Your task to perform on an android device: make emails show in primary in the gmail app Image 0: 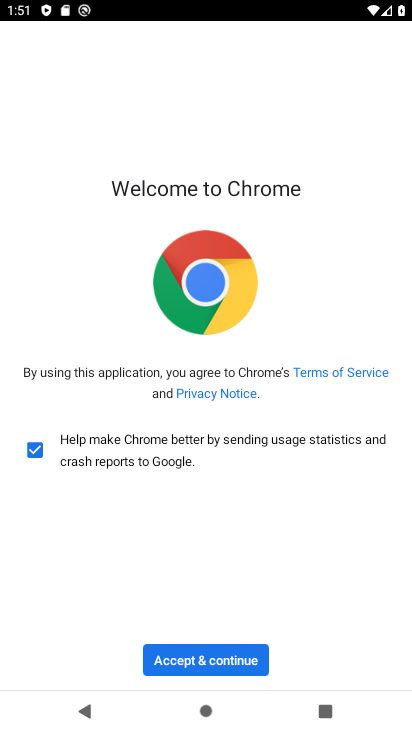
Step 0: press home button
Your task to perform on an android device: make emails show in primary in the gmail app Image 1: 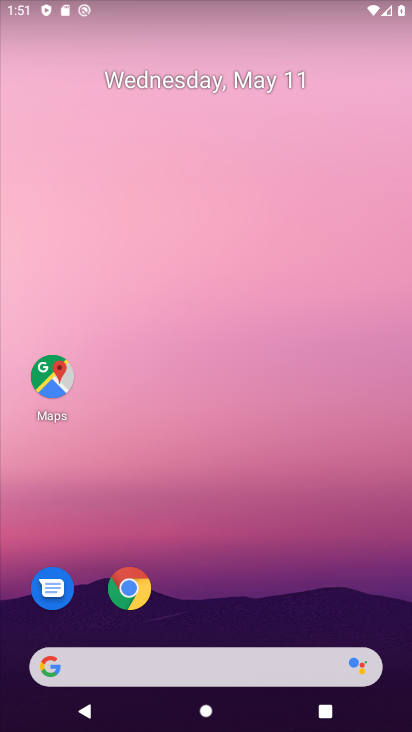
Step 1: drag from (246, 600) to (202, 156)
Your task to perform on an android device: make emails show in primary in the gmail app Image 2: 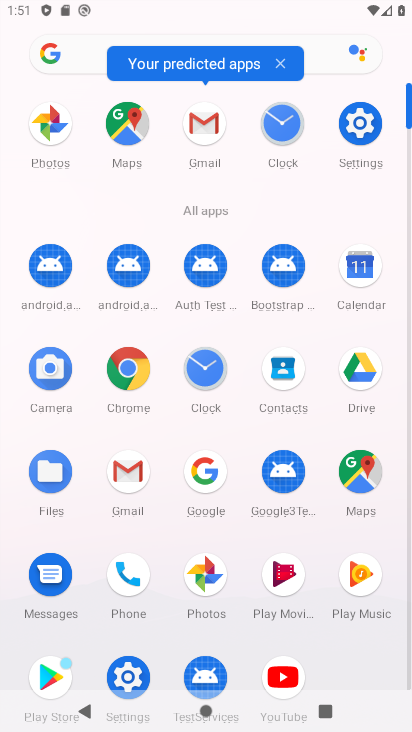
Step 2: click (202, 124)
Your task to perform on an android device: make emails show in primary in the gmail app Image 3: 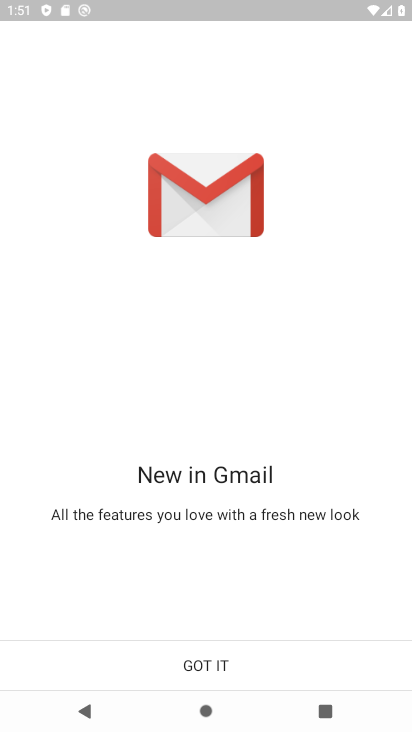
Step 3: click (250, 643)
Your task to perform on an android device: make emails show in primary in the gmail app Image 4: 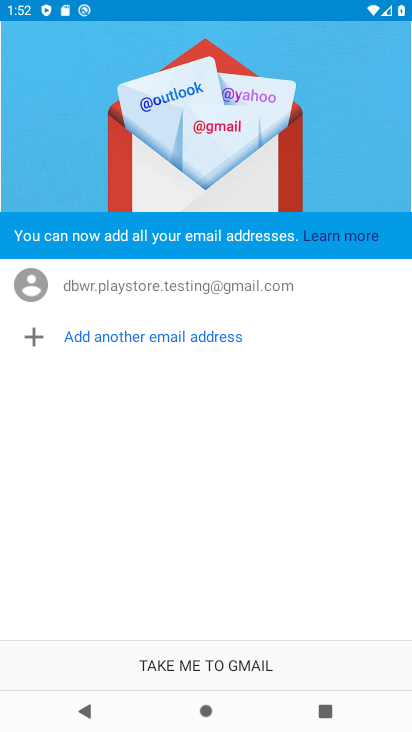
Step 4: click (228, 648)
Your task to perform on an android device: make emails show in primary in the gmail app Image 5: 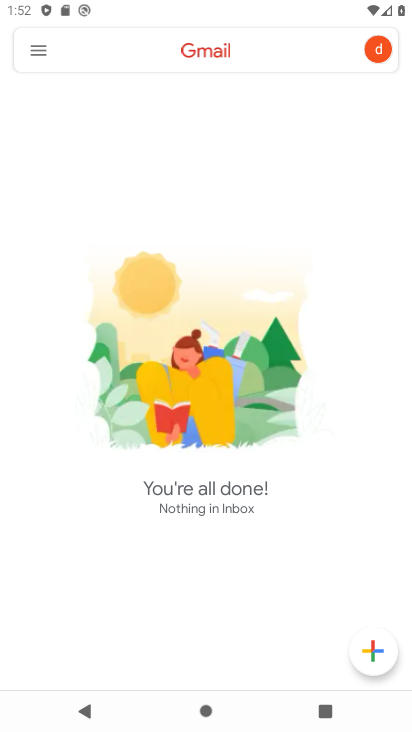
Step 5: click (33, 48)
Your task to perform on an android device: make emails show in primary in the gmail app Image 6: 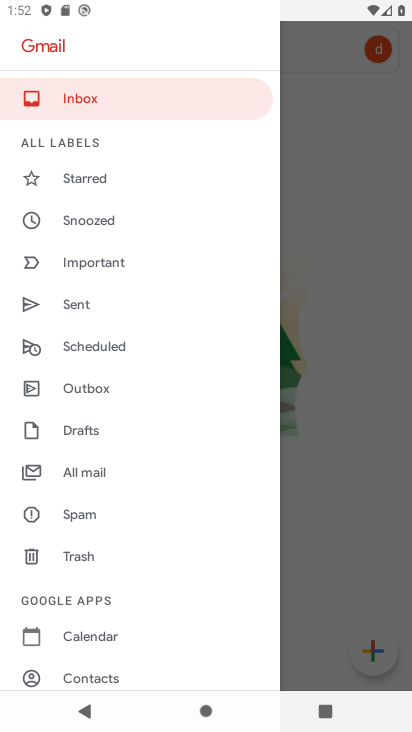
Step 6: click (107, 479)
Your task to perform on an android device: make emails show in primary in the gmail app Image 7: 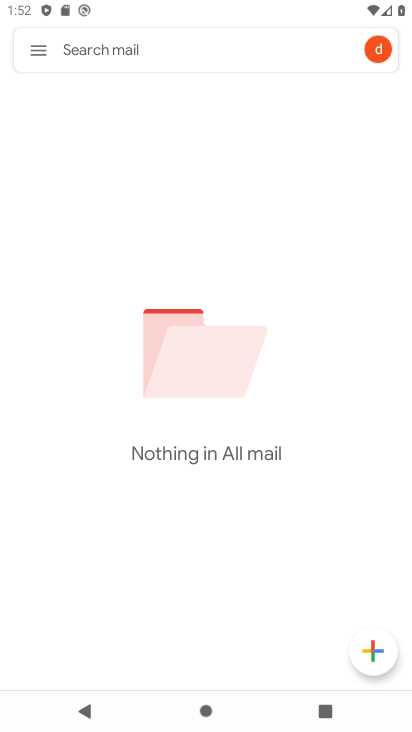
Step 7: task complete